Your task to perform on an android device: see sites visited before in the chrome app Image 0: 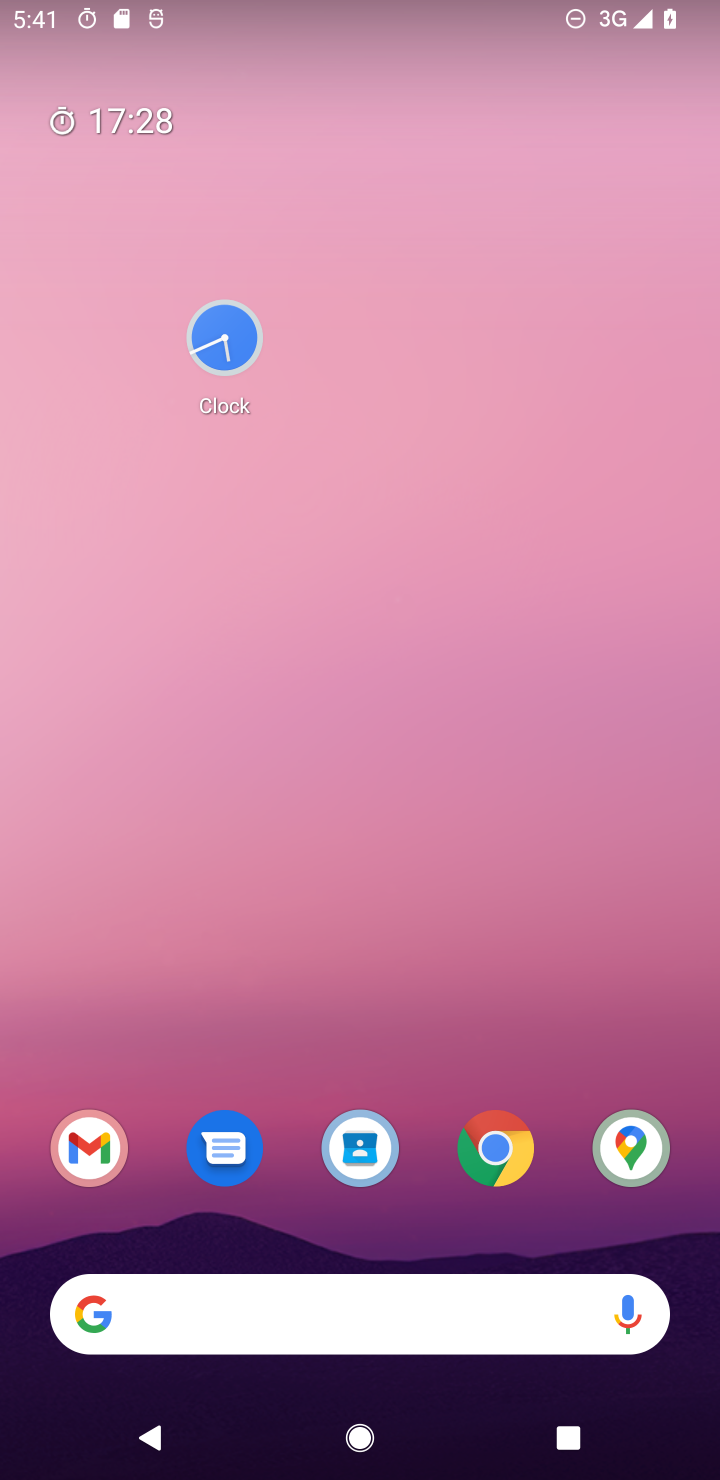
Step 0: drag from (460, 1207) to (424, 690)
Your task to perform on an android device: see sites visited before in the chrome app Image 1: 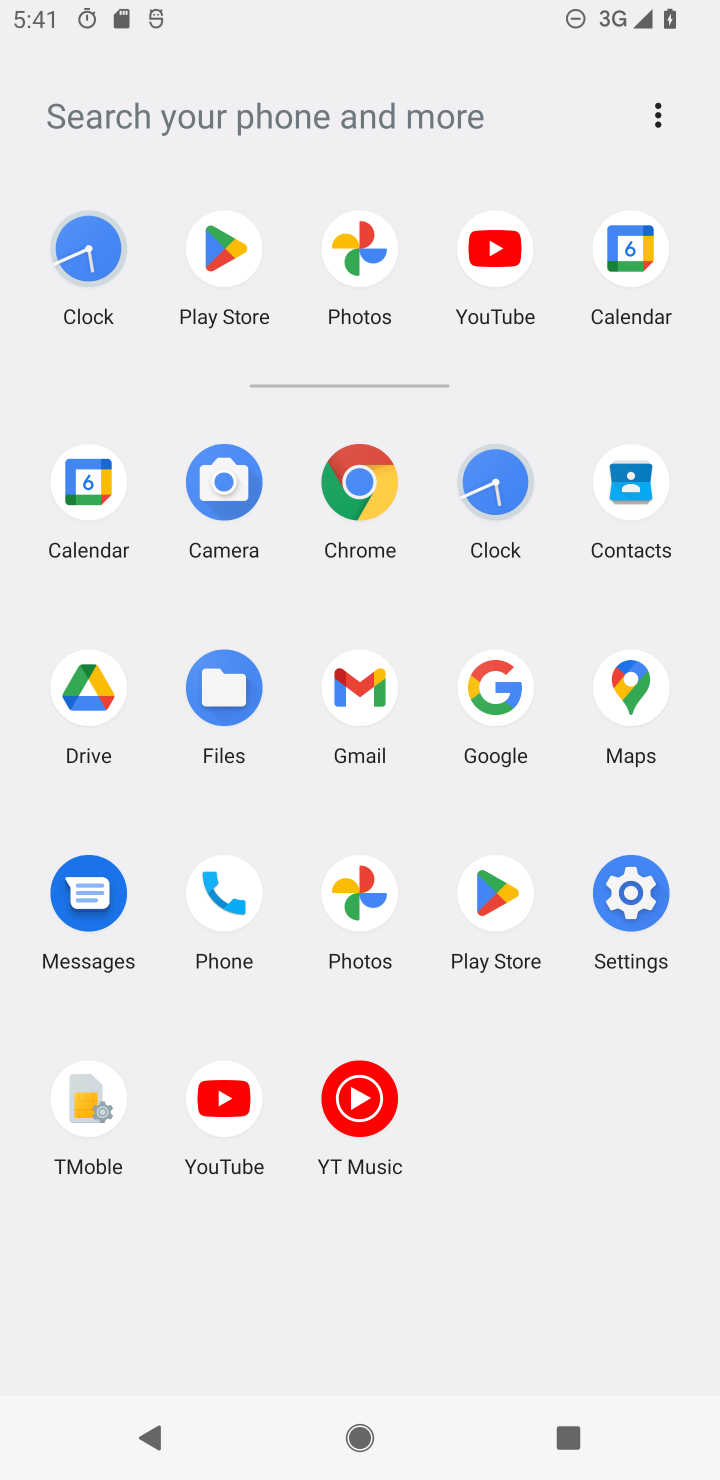
Step 1: click (339, 472)
Your task to perform on an android device: see sites visited before in the chrome app Image 2: 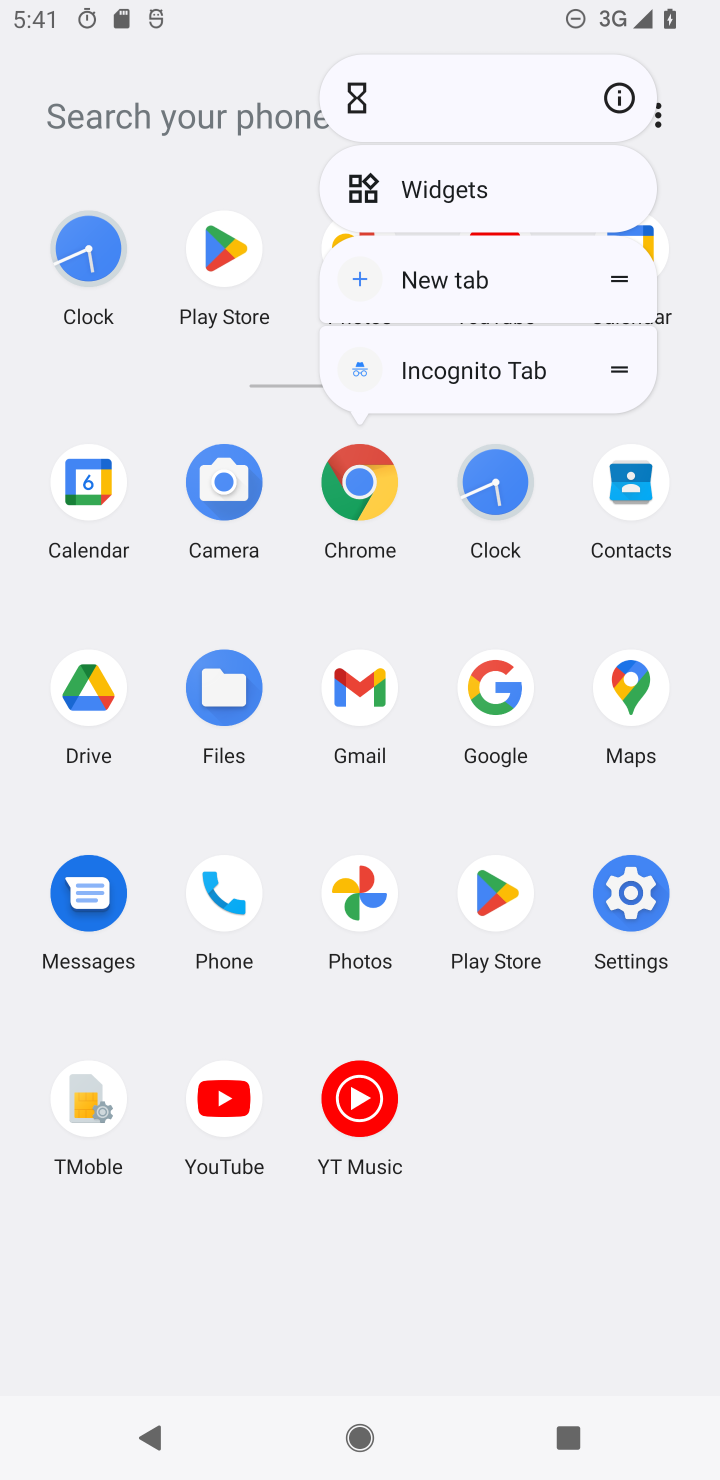
Step 2: click (616, 110)
Your task to perform on an android device: see sites visited before in the chrome app Image 3: 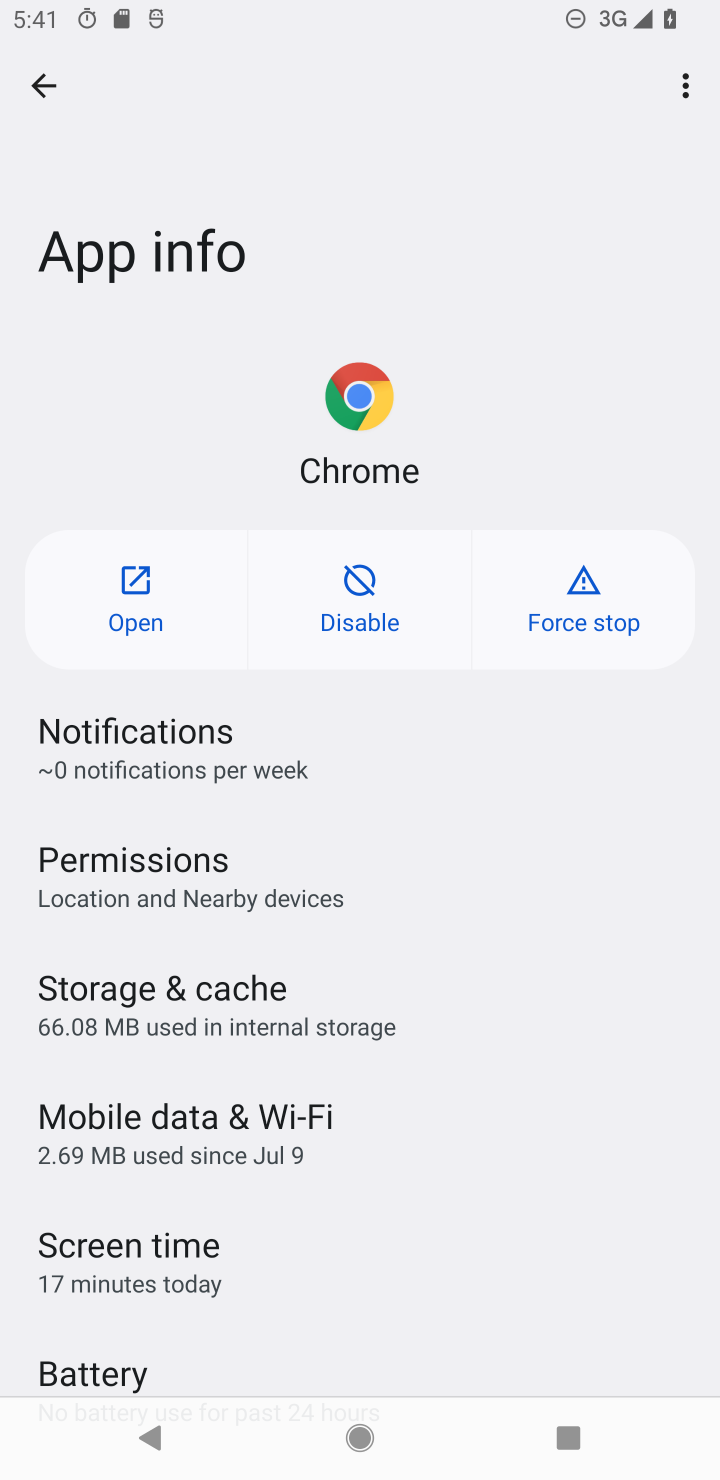
Step 3: click (143, 600)
Your task to perform on an android device: see sites visited before in the chrome app Image 4: 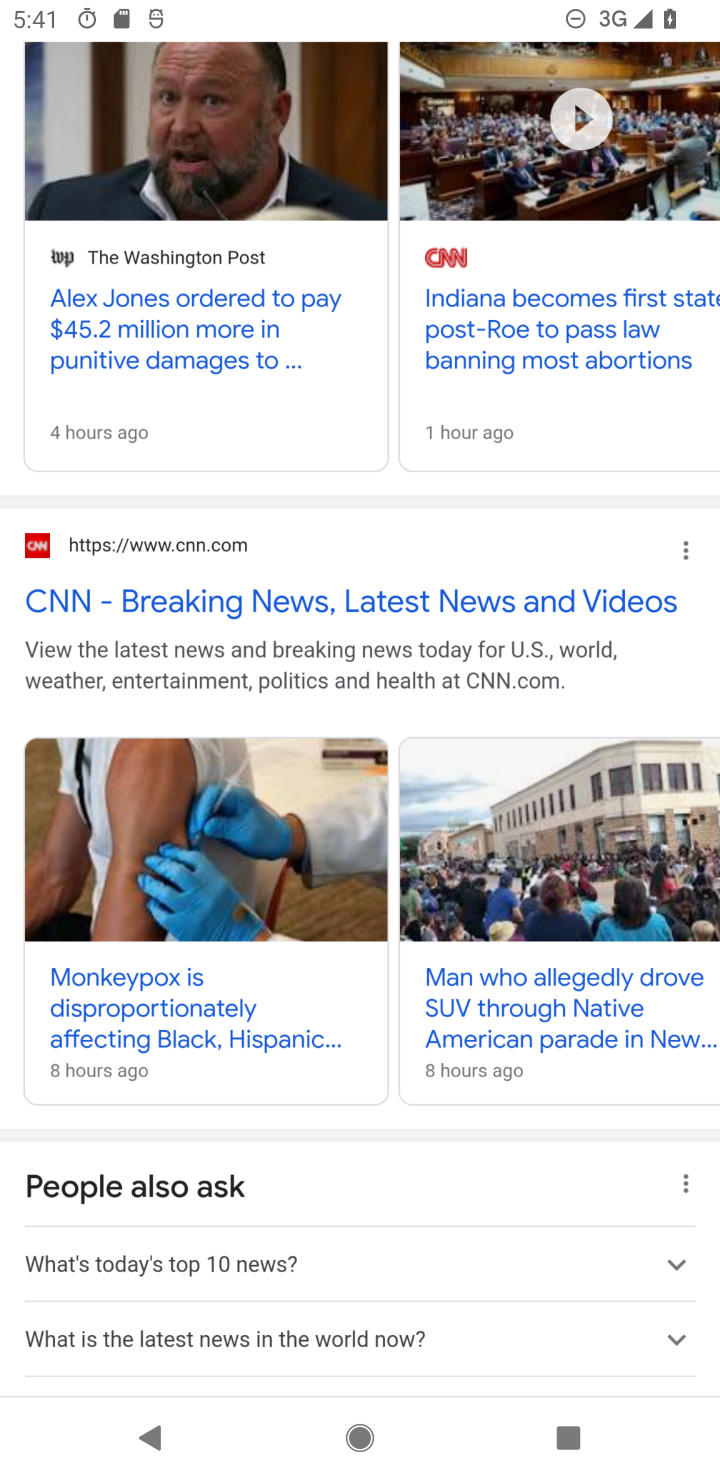
Step 4: task complete